Your task to perform on an android device: Open wifi settings Image 0: 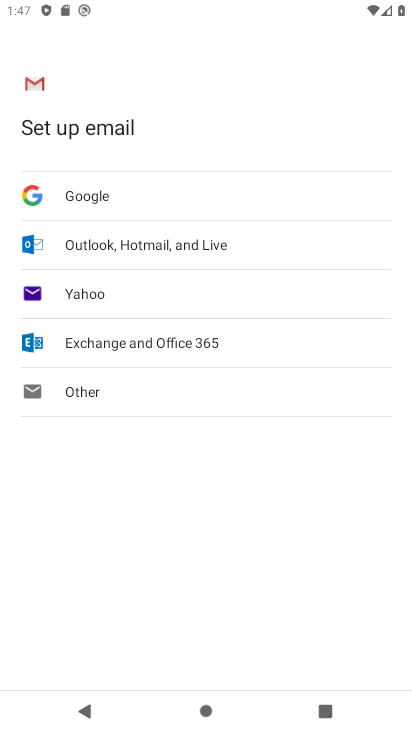
Step 0: press home button
Your task to perform on an android device: Open wifi settings Image 1: 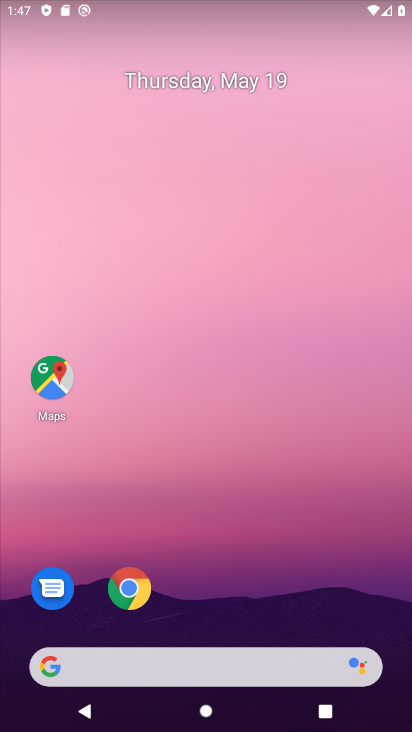
Step 1: click (211, 43)
Your task to perform on an android device: Open wifi settings Image 2: 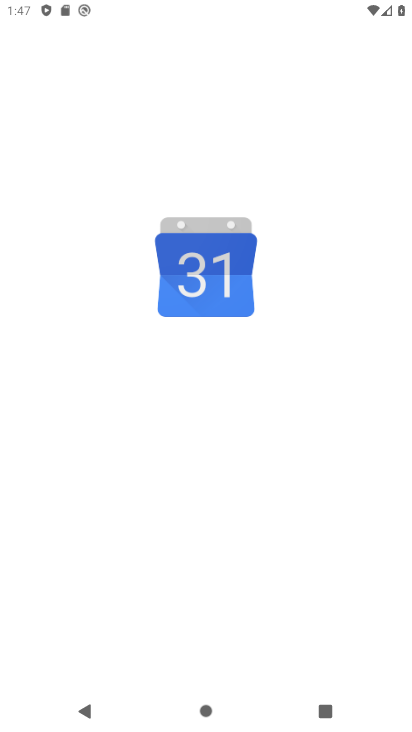
Step 2: drag from (251, 609) to (244, 321)
Your task to perform on an android device: Open wifi settings Image 3: 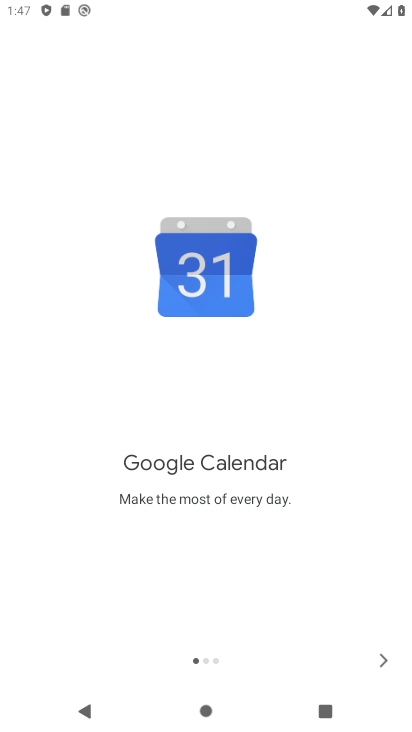
Step 3: press home button
Your task to perform on an android device: Open wifi settings Image 4: 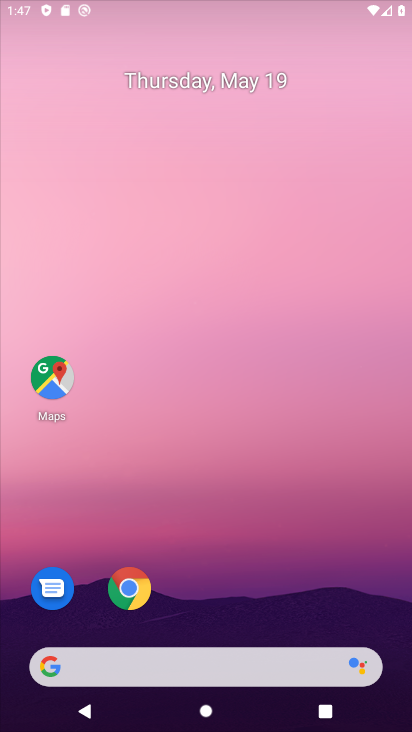
Step 4: drag from (245, 620) to (236, 195)
Your task to perform on an android device: Open wifi settings Image 5: 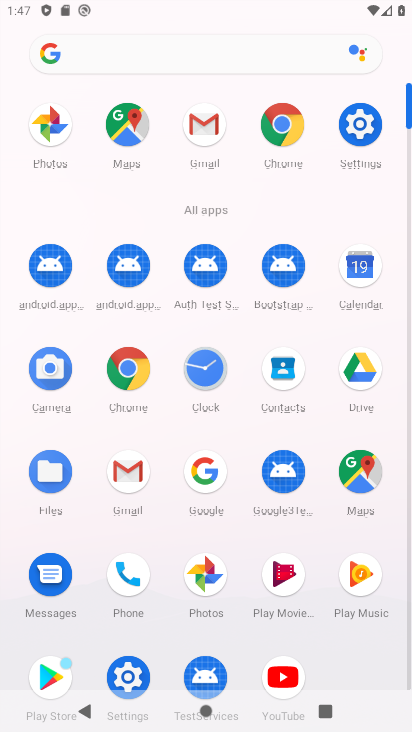
Step 5: click (364, 131)
Your task to perform on an android device: Open wifi settings Image 6: 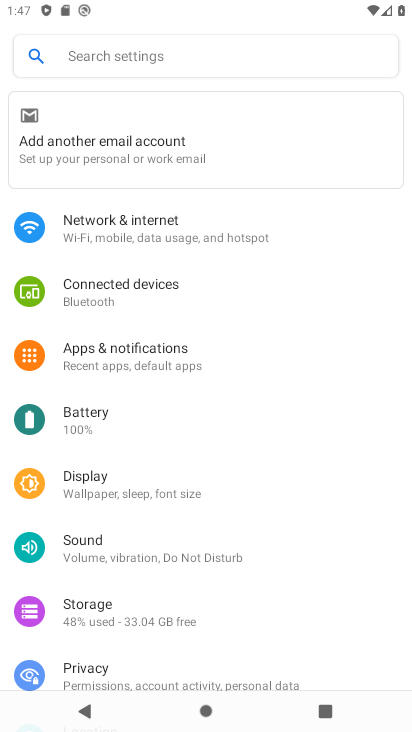
Step 6: click (119, 215)
Your task to perform on an android device: Open wifi settings Image 7: 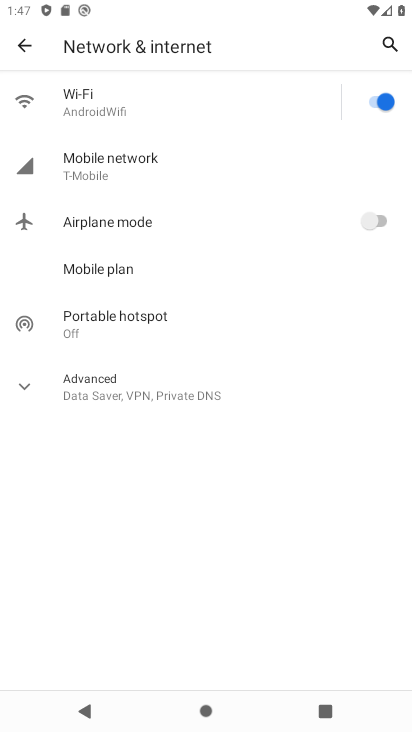
Step 7: click (202, 99)
Your task to perform on an android device: Open wifi settings Image 8: 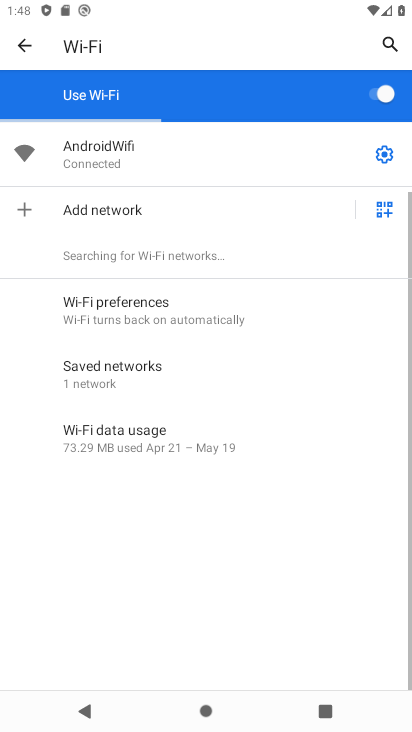
Step 8: click (395, 149)
Your task to perform on an android device: Open wifi settings Image 9: 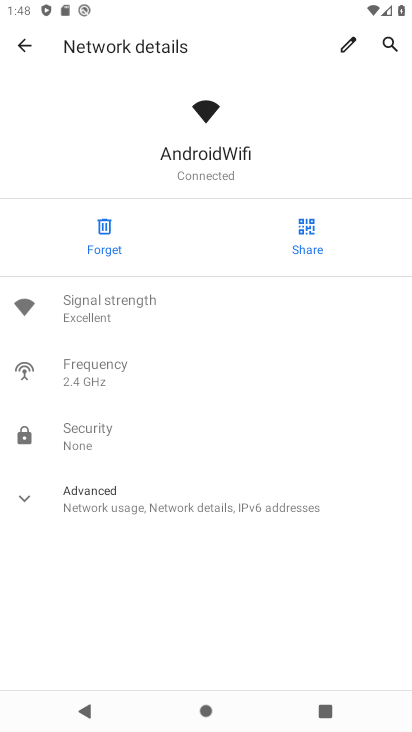
Step 9: task complete